Your task to perform on an android device: change the clock style Image 0: 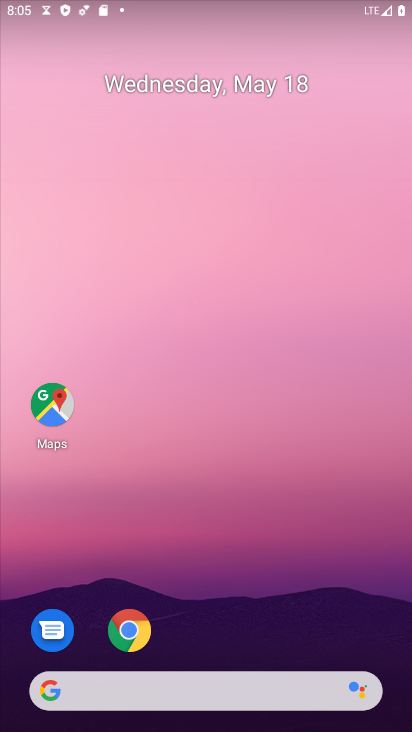
Step 0: drag from (235, 309) to (231, 54)
Your task to perform on an android device: change the clock style Image 1: 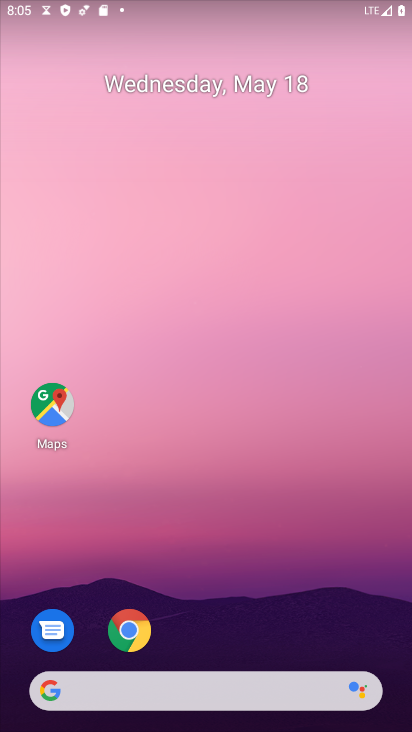
Step 1: drag from (329, 501) to (356, 134)
Your task to perform on an android device: change the clock style Image 2: 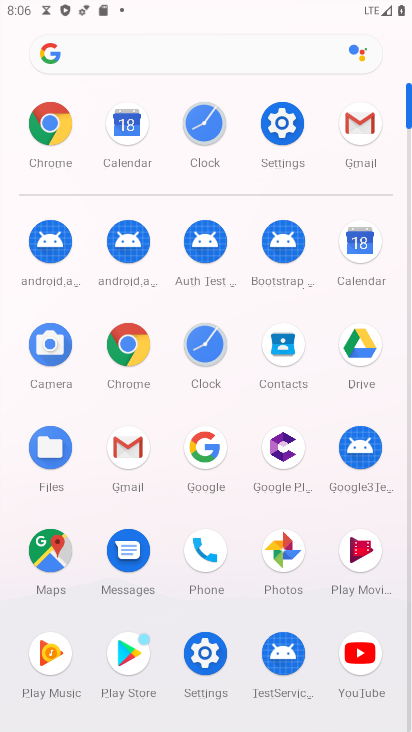
Step 2: click (200, 121)
Your task to perform on an android device: change the clock style Image 3: 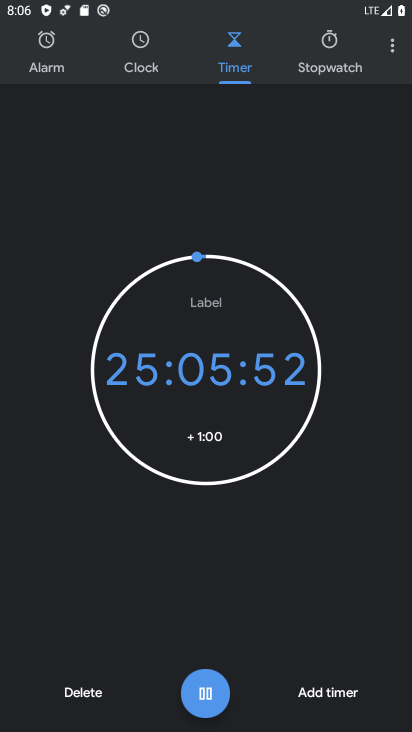
Step 3: click (399, 55)
Your task to perform on an android device: change the clock style Image 4: 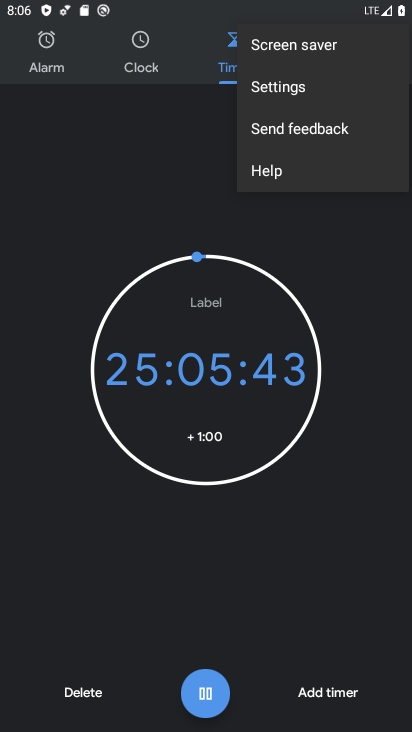
Step 4: click (297, 97)
Your task to perform on an android device: change the clock style Image 5: 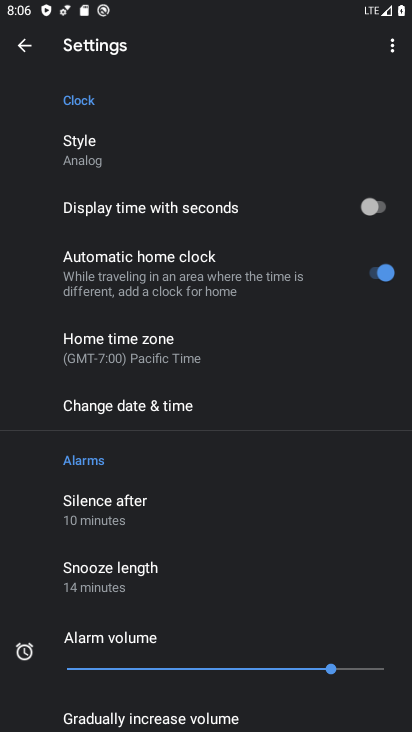
Step 5: click (105, 154)
Your task to perform on an android device: change the clock style Image 6: 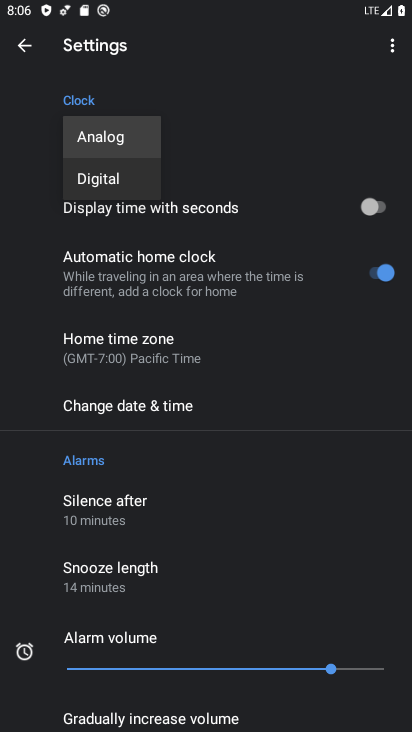
Step 6: click (103, 182)
Your task to perform on an android device: change the clock style Image 7: 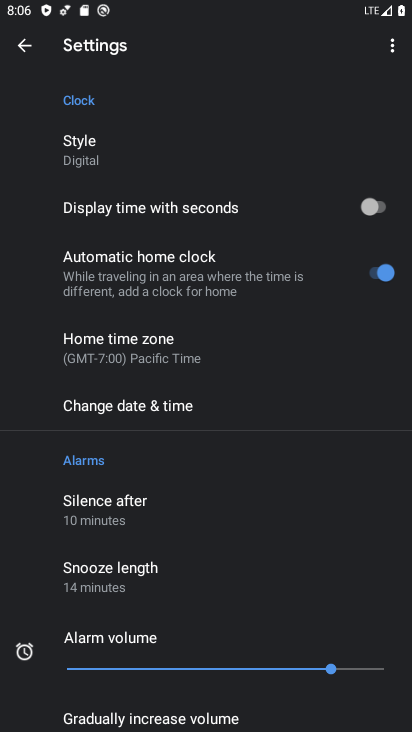
Step 7: task complete